Your task to perform on an android device: turn off data saver in the chrome app Image 0: 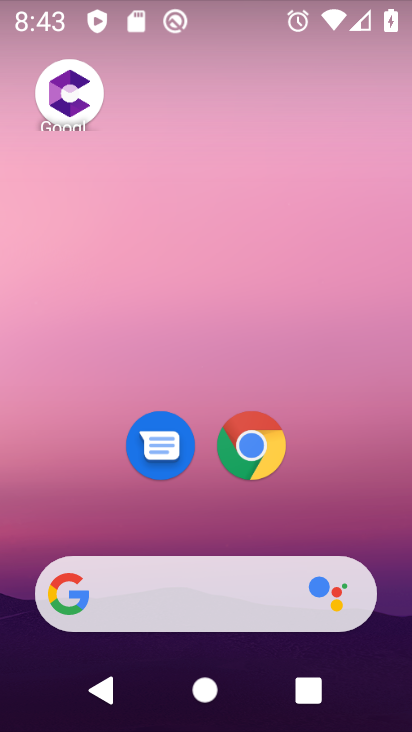
Step 0: click (242, 443)
Your task to perform on an android device: turn off data saver in the chrome app Image 1: 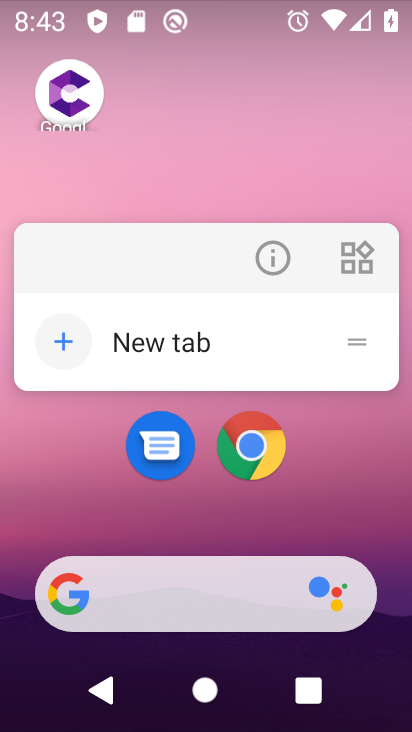
Step 1: click (239, 436)
Your task to perform on an android device: turn off data saver in the chrome app Image 2: 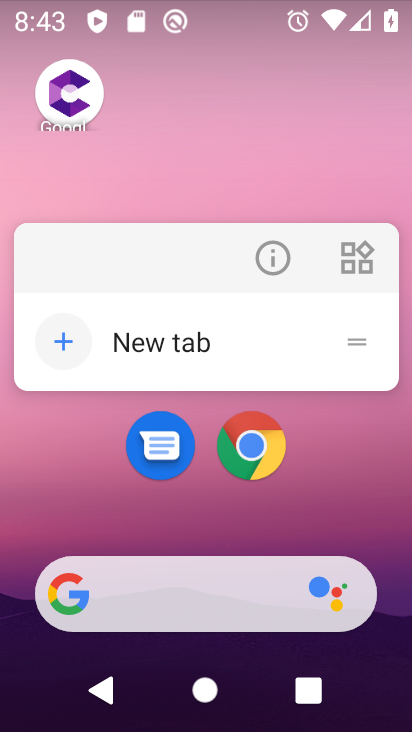
Step 2: click (239, 436)
Your task to perform on an android device: turn off data saver in the chrome app Image 3: 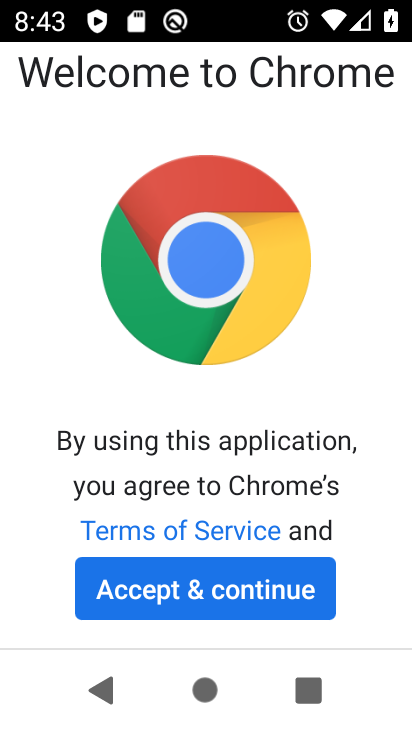
Step 3: click (310, 586)
Your task to perform on an android device: turn off data saver in the chrome app Image 4: 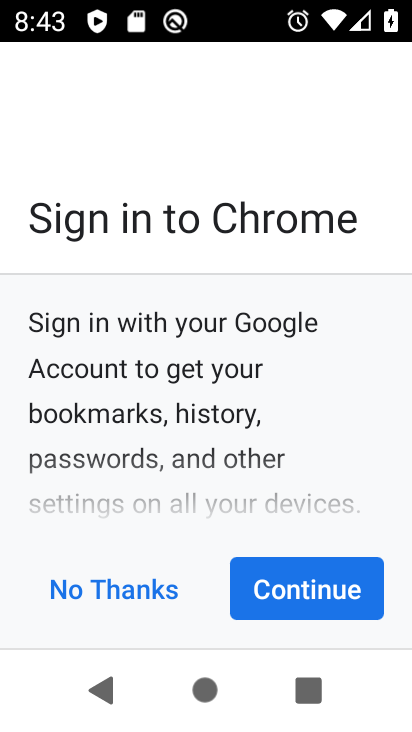
Step 4: click (310, 584)
Your task to perform on an android device: turn off data saver in the chrome app Image 5: 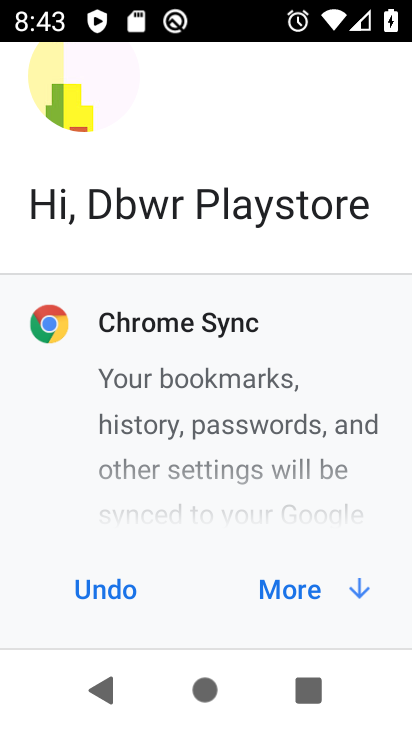
Step 5: click (100, 599)
Your task to perform on an android device: turn off data saver in the chrome app Image 6: 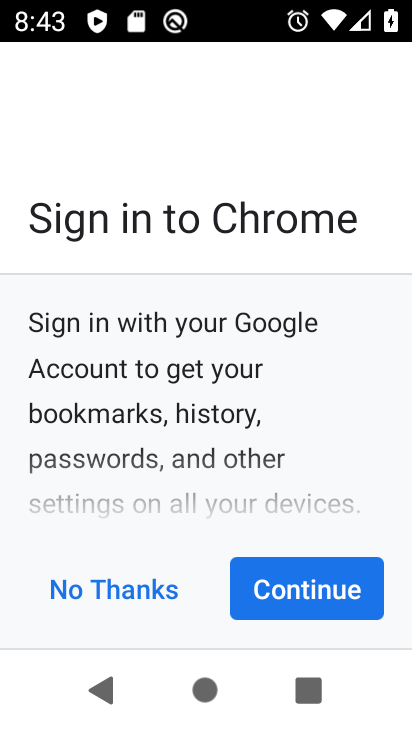
Step 6: click (153, 581)
Your task to perform on an android device: turn off data saver in the chrome app Image 7: 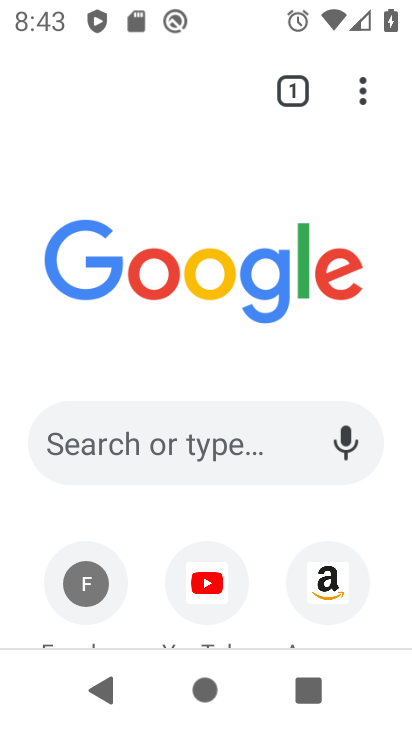
Step 7: click (363, 77)
Your task to perform on an android device: turn off data saver in the chrome app Image 8: 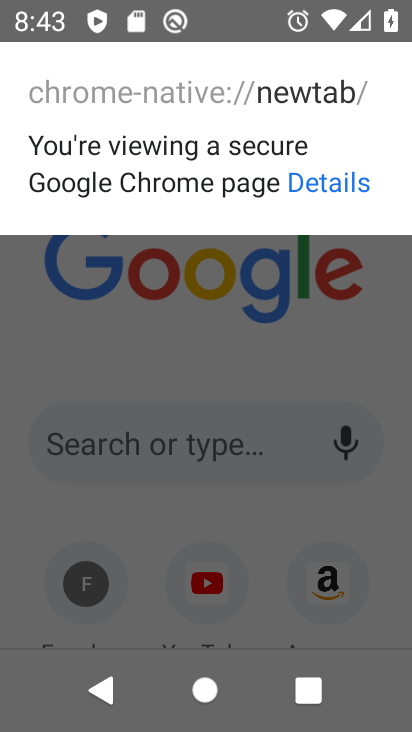
Step 8: click (197, 371)
Your task to perform on an android device: turn off data saver in the chrome app Image 9: 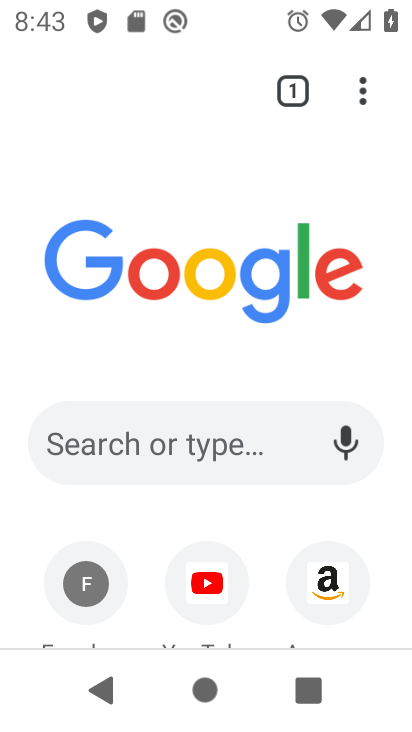
Step 9: click (357, 98)
Your task to perform on an android device: turn off data saver in the chrome app Image 10: 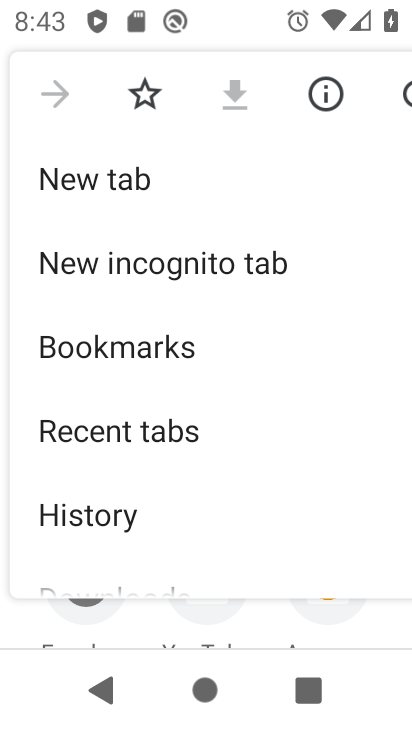
Step 10: drag from (136, 549) to (227, 152)
Your task to perform on an android device: turn off data saver in the chrome app Image 11: 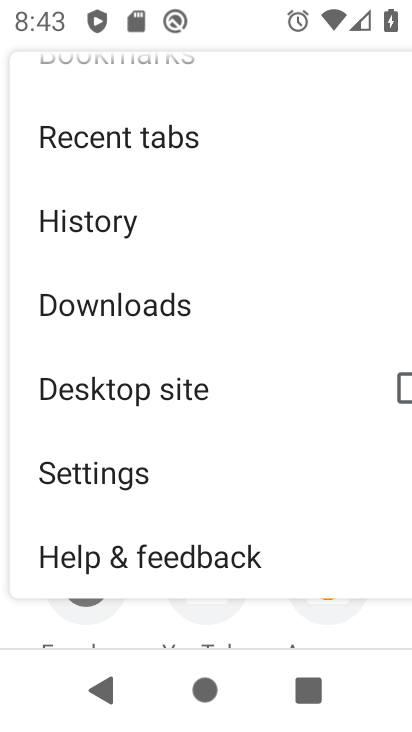
Step 11: click (131, 470)
Your task to perform on an android device: turn off data saver in the chrome app Image 12: 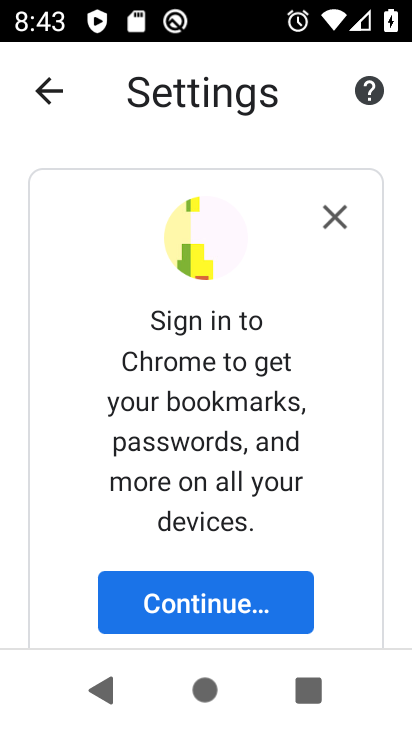
Step 12: click (328, 217)
Your task to perform on an android device: turn off data saver in the chrome app Image 13: 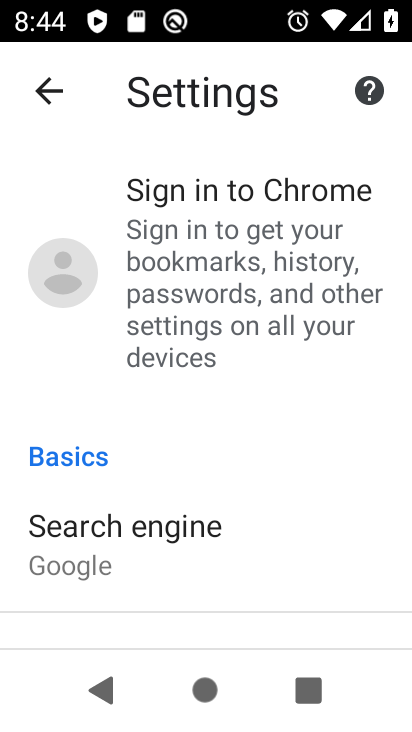
Step 13: drag from (151, 347) to (169, 94)
Your task to perform on an android device: turn off data saver in the chrome app Image 14: 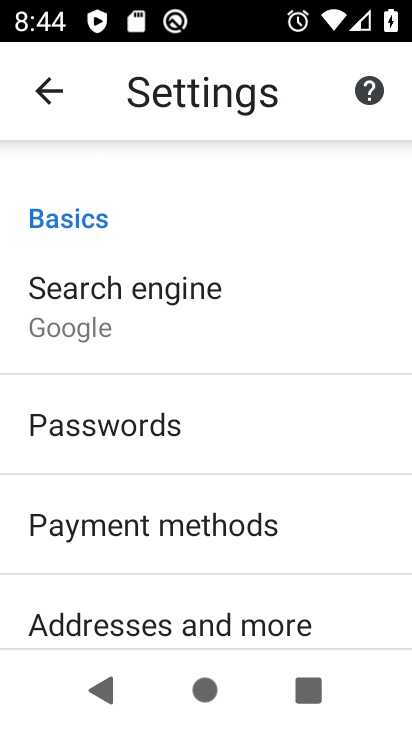
Step 14: drag from (151, 592) to (234, 310)
Your task to perform on an android device: turn off data saver in the chrome app Image 15: 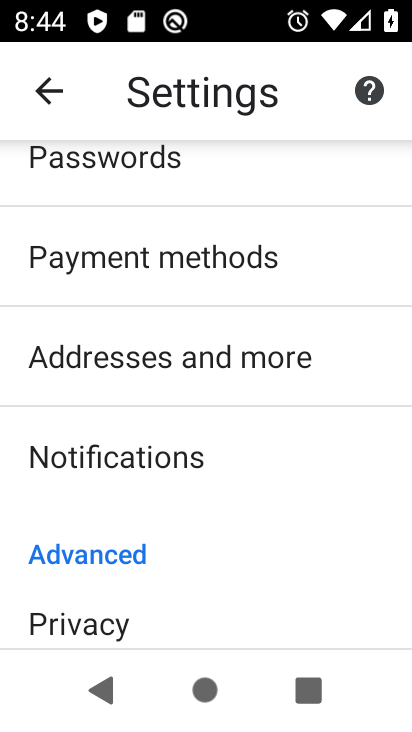
Step 15: drag from (183, 561) to (289, 254)
Your task to perform on an android device: turn off data saver in the chrome app Image 16: 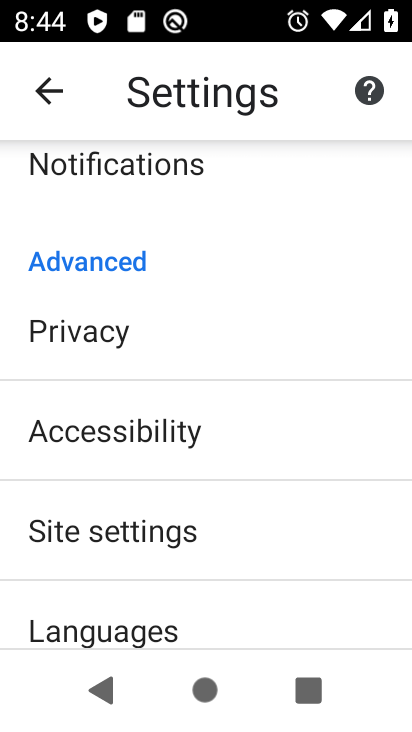
Step 16: drag from (199, 589) to (287, 247)
Your task to perform on an android device: turn off data saver in the chrome app Image 17: 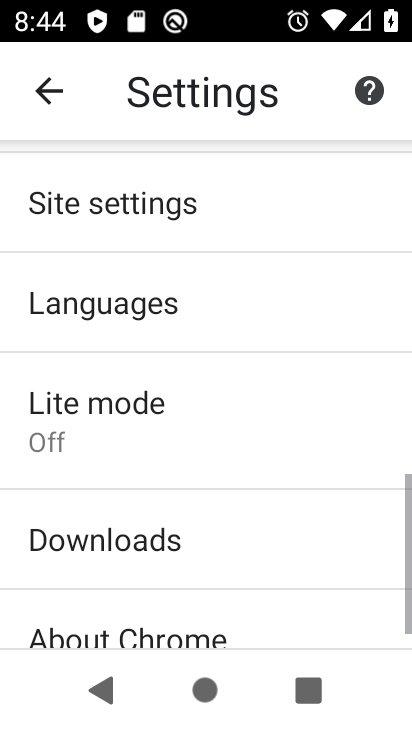
Step 17: drag from (158, 524) to (211, 373)
Your task to perform on an android device: turn off data saver in the chrome app Image 18: 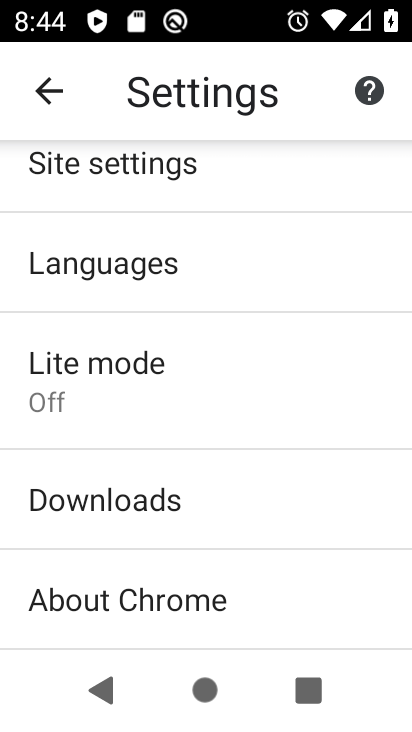
Step 18: click (198, 349)
Your task to perform on an android device: turn off data saver in the chrome app Image 19: 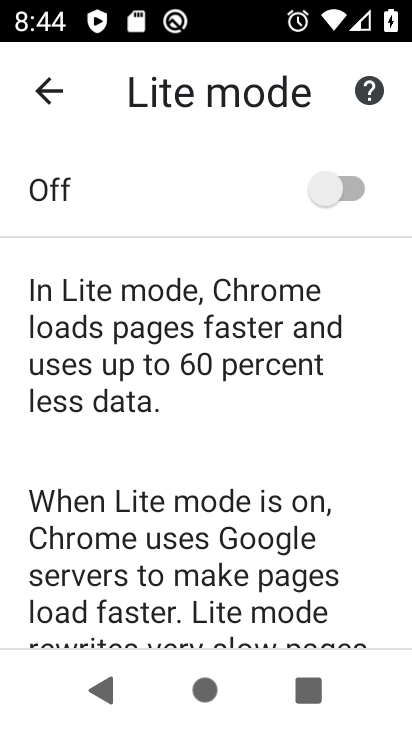
Step 19: task complete